Your task to perform on an android device: turn on bluetooth scan Image 0: 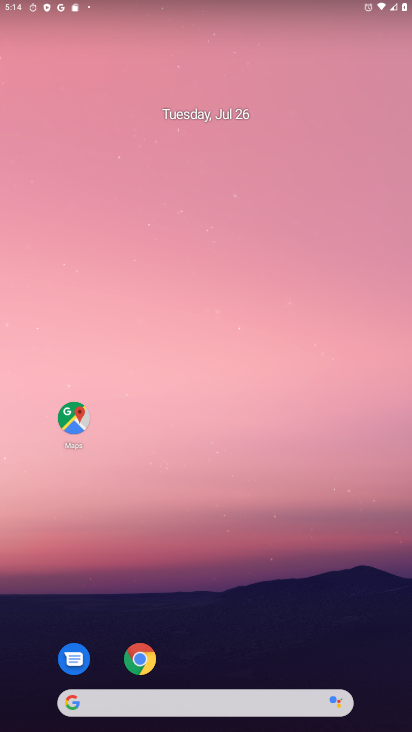
Step 0: drag from (237, 619) to (277, 159)
Your task to perform on an android device: turn on bluetooth scan Image 1: 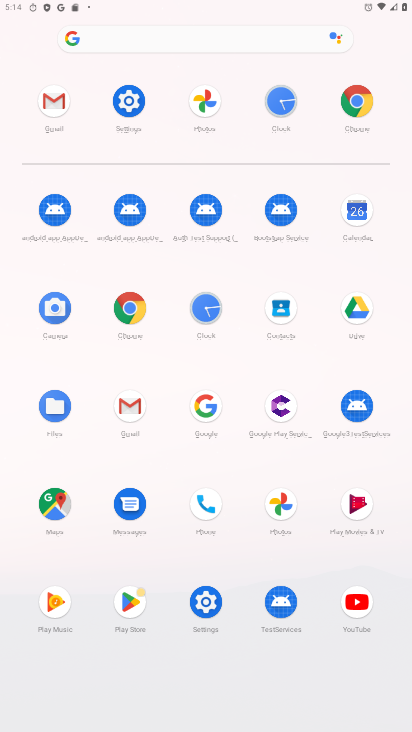
Step 1: click (131, 91)
Your task to perform on an android device: turn on bluetooth scan Image 2: 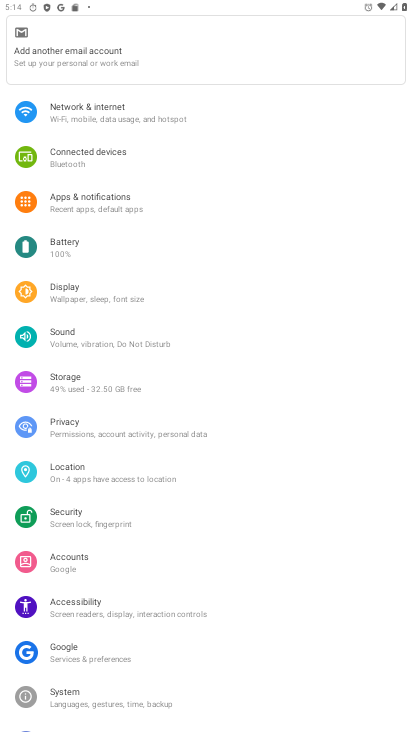
Step 2: click (86, 470)
Your task to perform on an android device: turn on bluetooth scan Image 3: 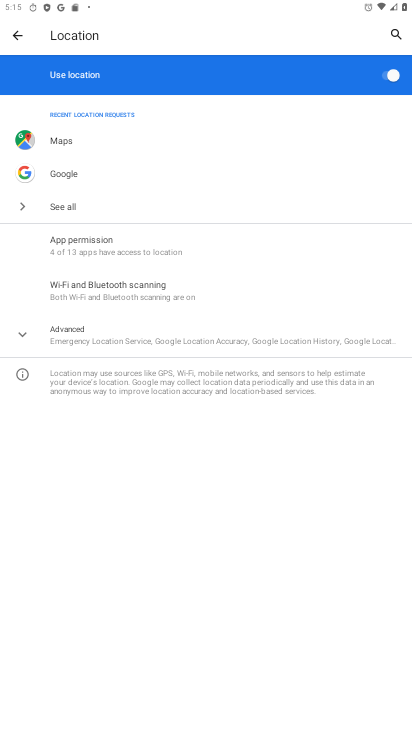
Step 3: click (223, 286)
Your task to perform on an android device: turn on bluetooth scan Image 4: 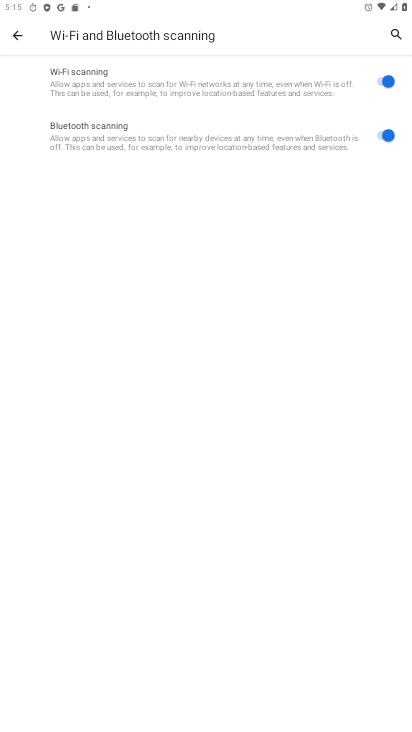
Step 4: task complete